Your task to perform on an android device: toggle translation in the chrome app Image 0: 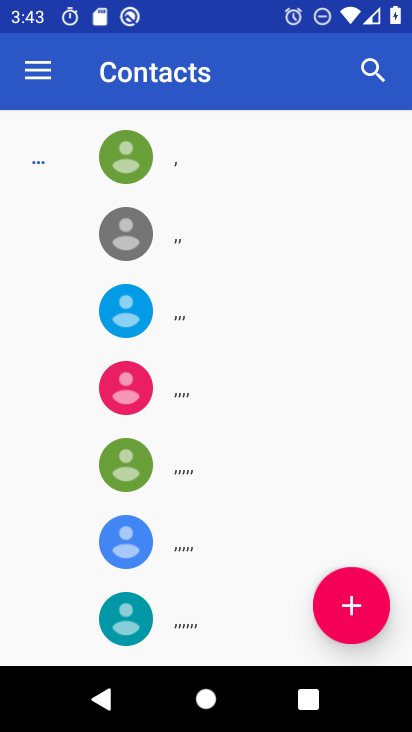
Step 0: press home button
Your task to perform on an android device: toggle translation in the chrome app Image 1: 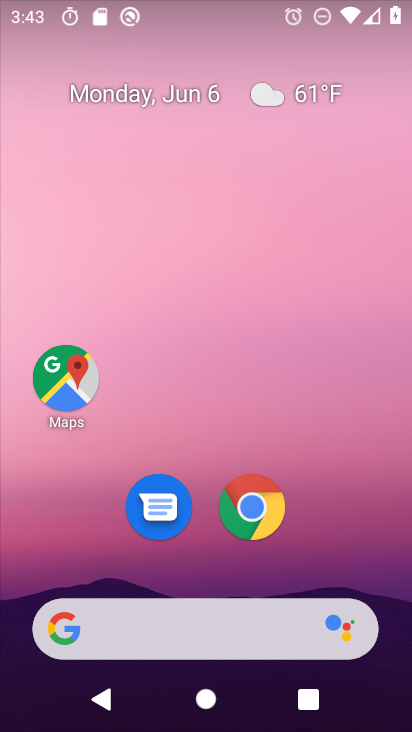
Step 1: click (259, 484)
Your task to perform on an android device: toggle translation in the chrome app Image 2: 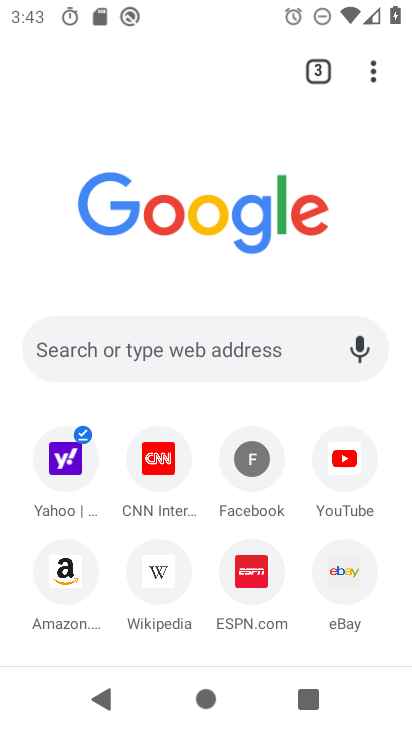
Step 2: click (369, 80)
Your task to perform on an android device: toggle translation in the chrome app Image 3: 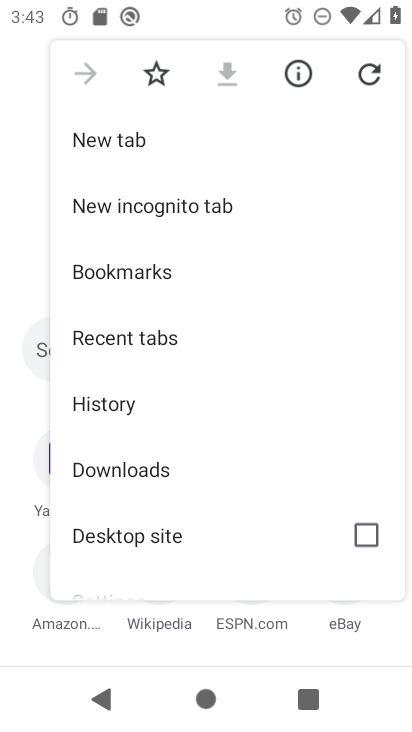
Step 3: drag from (128, 546) to (187, 251)
Your task to perform on an android device: toggle translation in the chrome app Image 4: 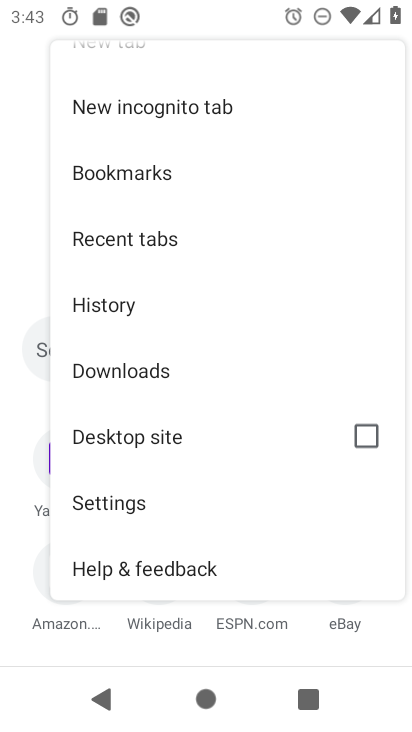
Step 4: click (159, 501)
Your task to perform on an android device: toggle translation in the chrome app Image 5: 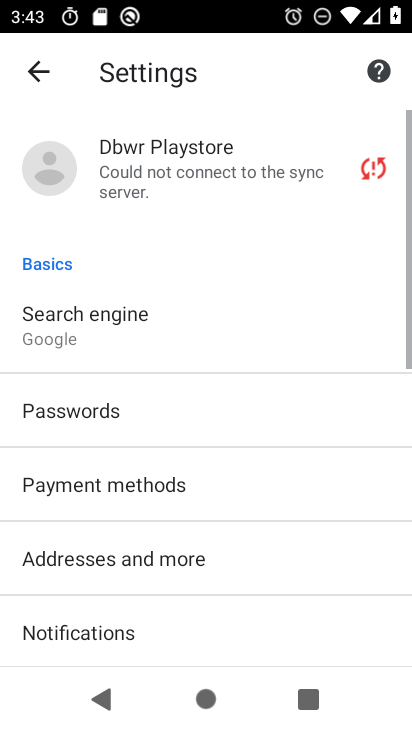
Step 5: drag from (171, 431) to (196, 273)
Your task to perform on an android device: toggle translation in the chrome app Image 6: 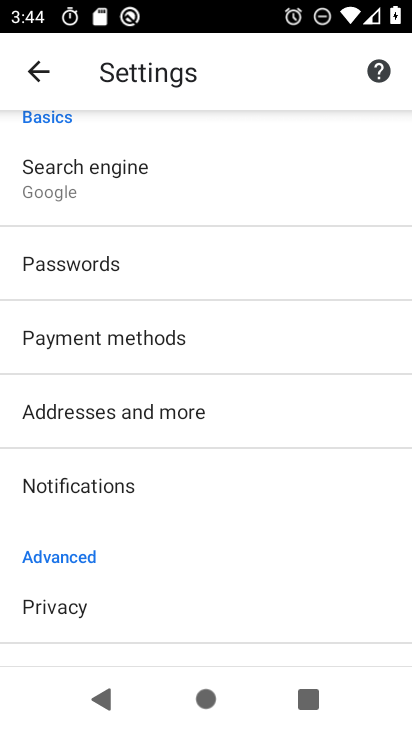
Step 6: drag from (170, 556) to (173, 257)
Your task to perform on an android device: toggle translation in the chrome app Image 7: 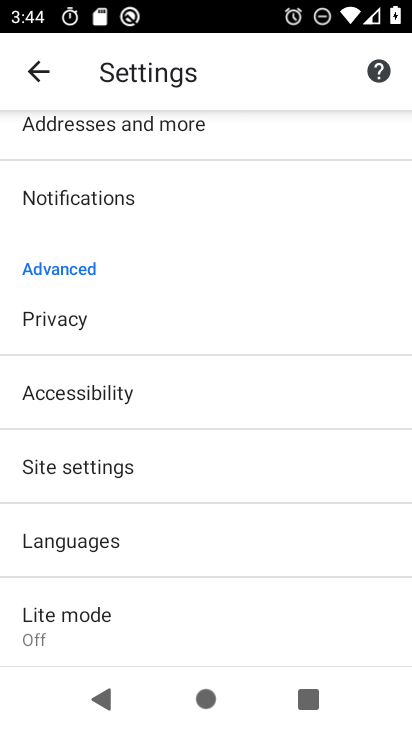
Step 7: click (132, 553)
Your task to perform on an android device: toggle translation in the chrome app Image 8: 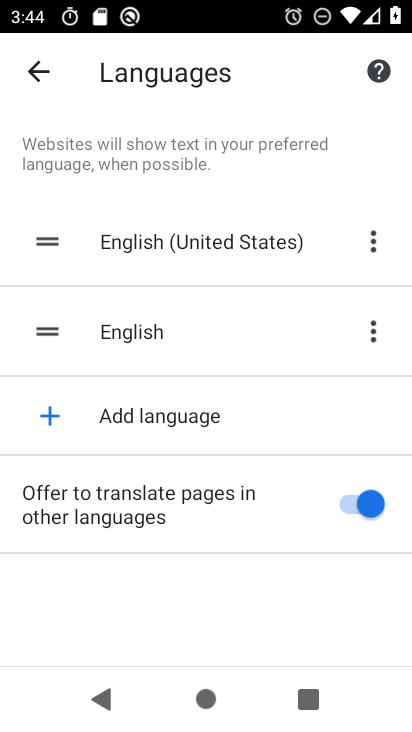
Step 8: click (356, 509)
Your task to perform on an android device: toggle translation in the chrome app Image 9: 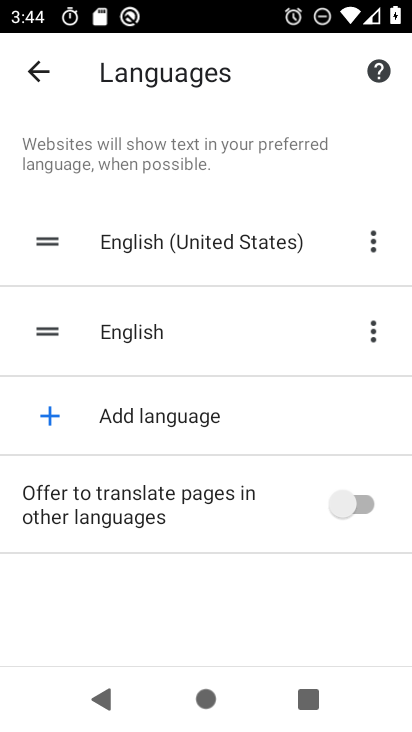
Step 9: task complete